Your task to perform on an android device: See recent photos Image 0: 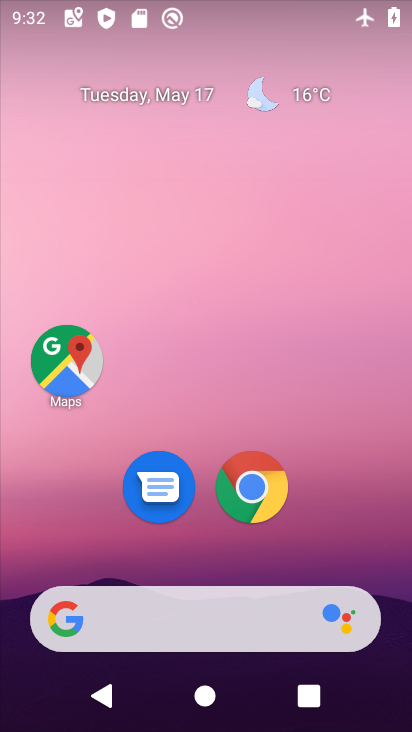
Step 0: drag from (194, 563) to (307, 11)
Your task to perform on an android device: See recent photos Image 1: 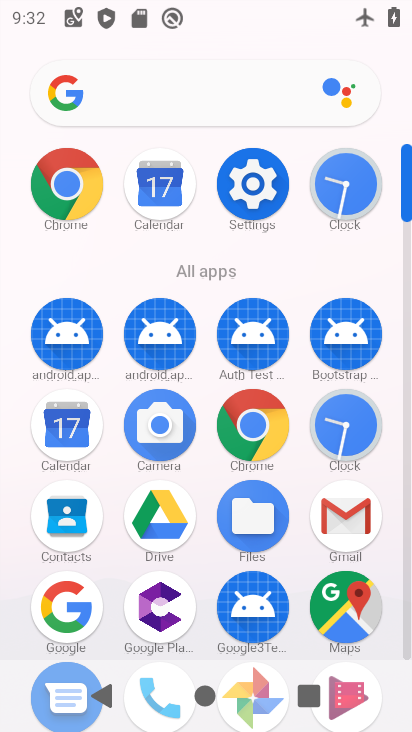
Step 1: drag from (205, 567) to (257, 258)
Your task to perform on an android device: See recent photos Image 2: 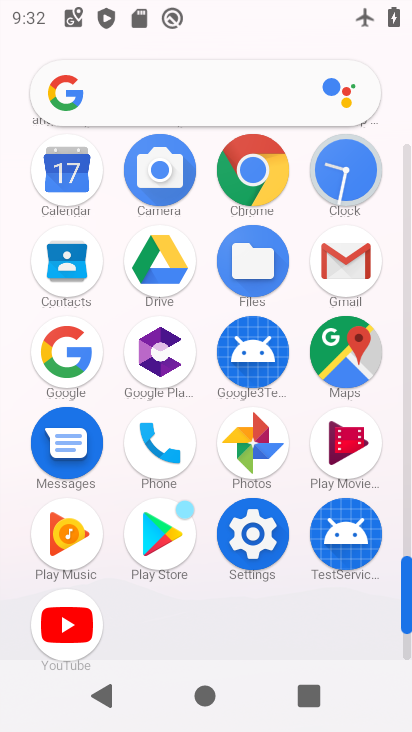
Step 2: click (258, 448)
Your task to perform on an android device: See recent photos Image 3: 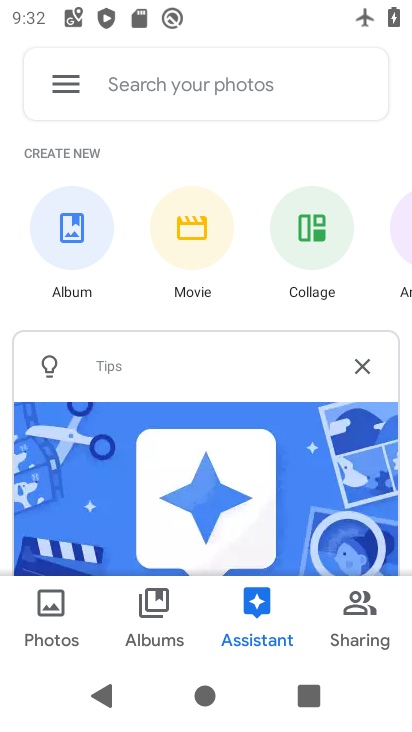
Step 3: click (49, 623)
Your task to perform on an android device: See recent photos Image 4: 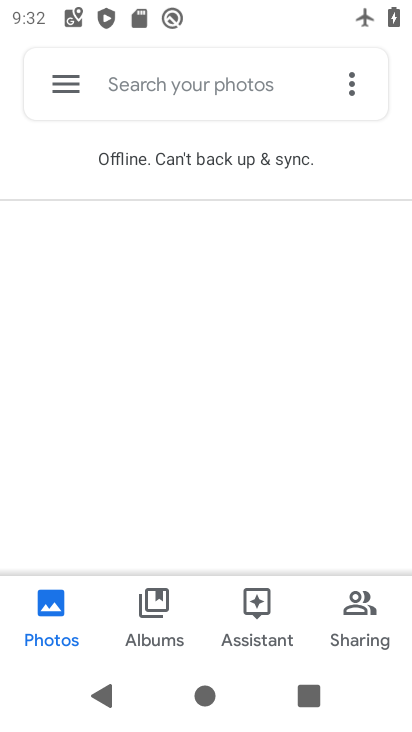
Step 4: click (280, 158)
Your task to perform on an android device: See recent photos Image 5: 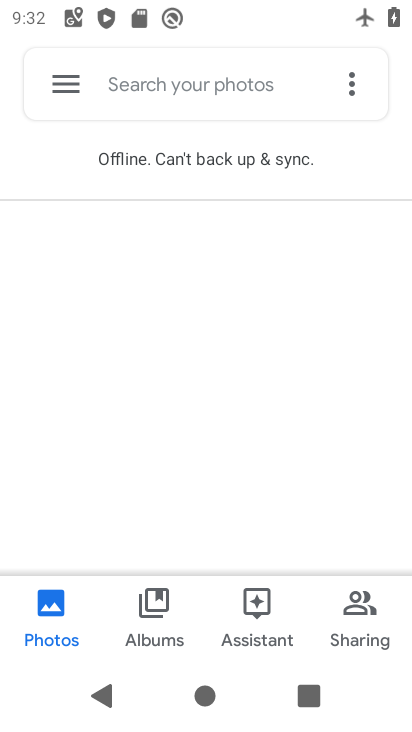
Step 5: task complete